Your task to perform on an android device: Show me productivity apps on the Play Store Image 0: 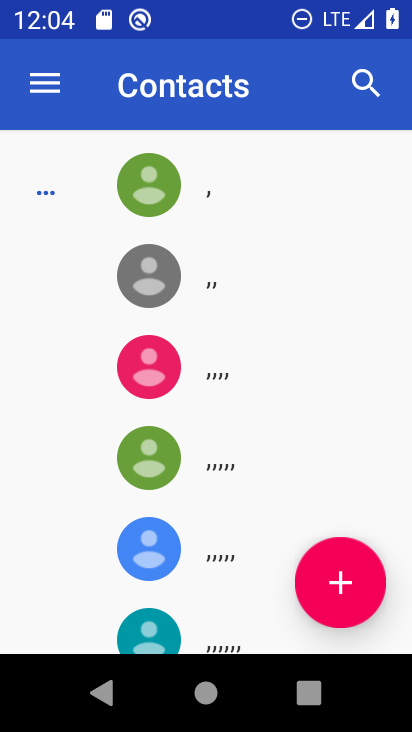
Step 0: press home button
Your task to perform on an android device: Show me productivity apps on the Play Store Image 1: 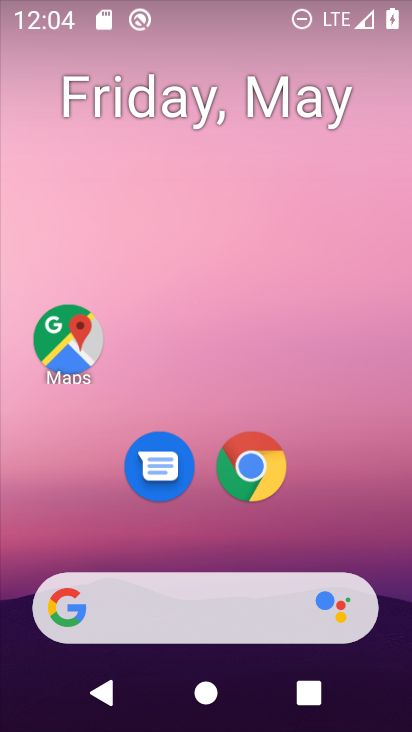
Step 1: drag from (262, 631) to (252, 210)
Your task to perform on an android device: Show me productivity apps on the Play Store Image 2: 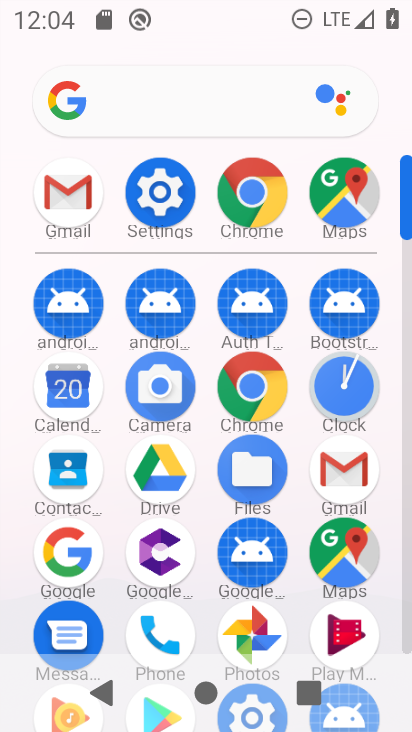
Step 2: drag from (294, 678) to (312, 288)
Your task to perform on an android device: Show me productivity apps on the Play Store Image 3: 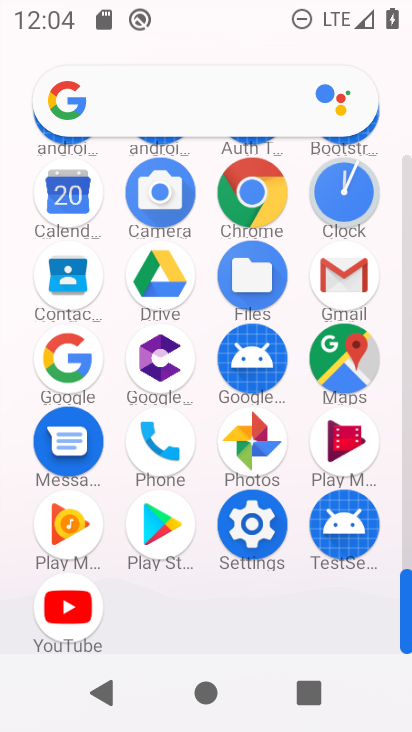
Step 3: click (166, 531)
Your task to perform on an android device: Show me productivity apps on the Play Store Image 4: 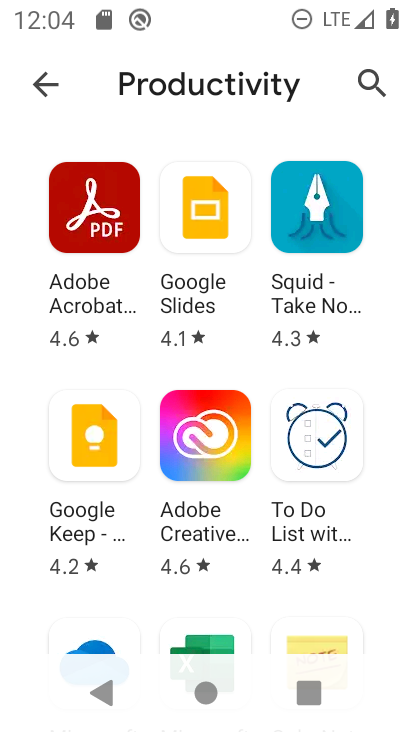
Step 4: task complete